Your task to perform on an android device: Search for seafood restaurants on Google Maps Image 0: 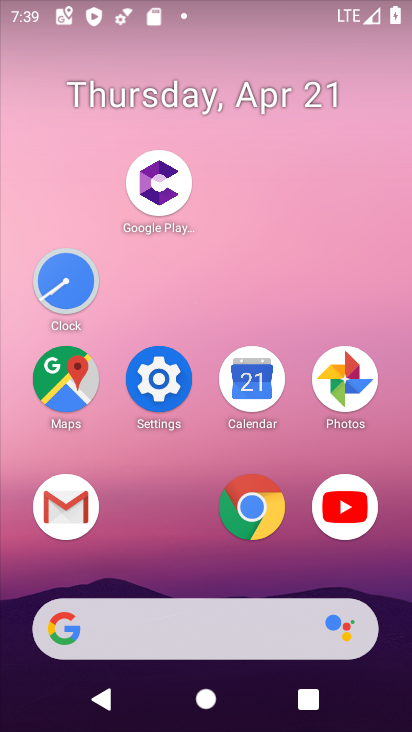
Step 0: click (57, 381)
Your task to perform on an android device: Search for seafood restaurants on Google Maps Image 1: 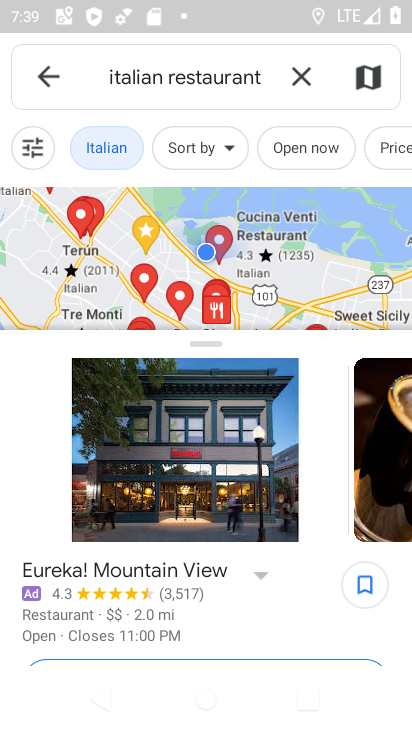
Step 1: click (300, 81)
Your task to perform on an android device: Search for seafood restaurants on Google Maps Image 2: 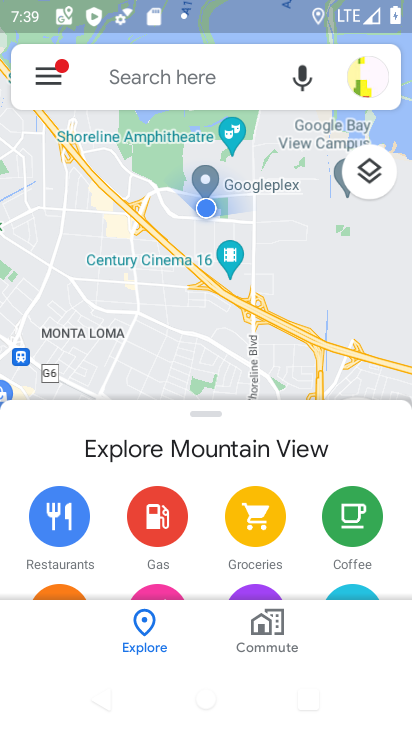
Step 2: click (186, 75)
Your task to perform on an android device: Search for seafood restaurants on Google Maps Image 3: 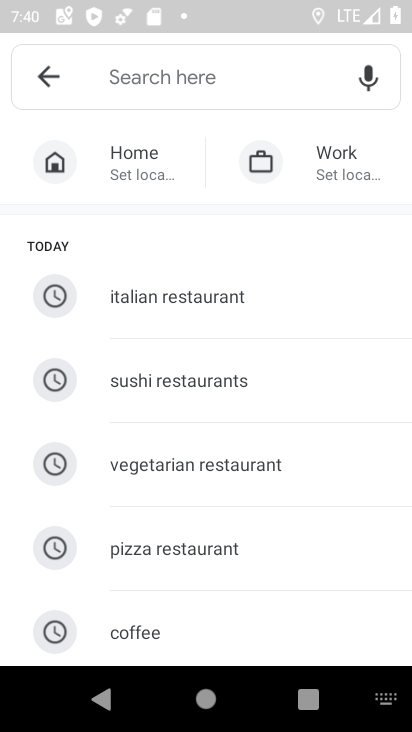
Step 3: type "seafood restaurants"
Your task to perform on an android device: Search for seafood restaurants on Google Maps Image 4: 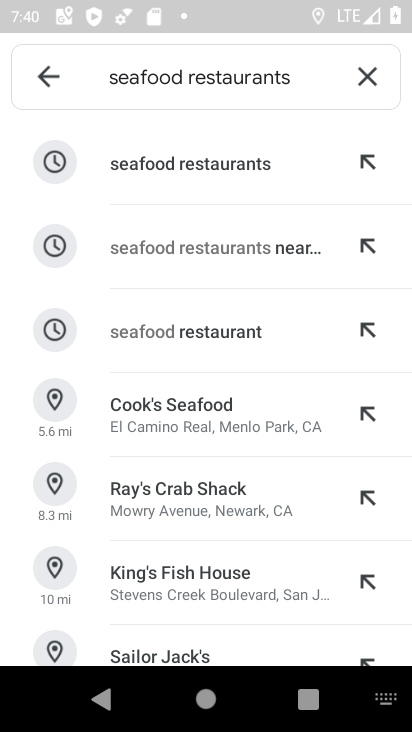
Step 4: click (212, 156)
Your task to perform on an android device: Search for seafood restaurants on Google Maps Image 5: 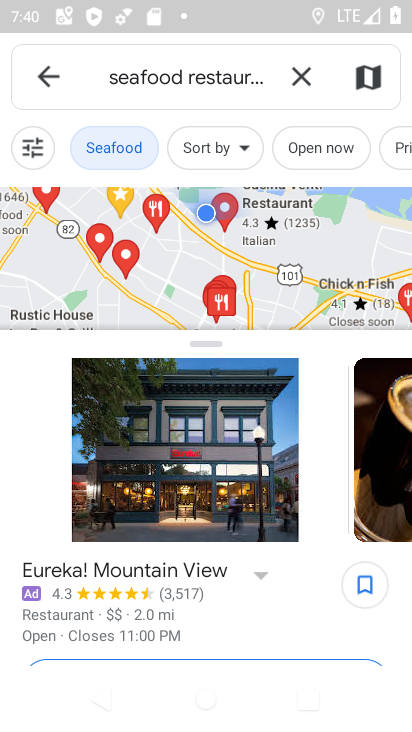
Step 5: task complete